Your task to perform on an android device: Open Yahoo.com Image 0: 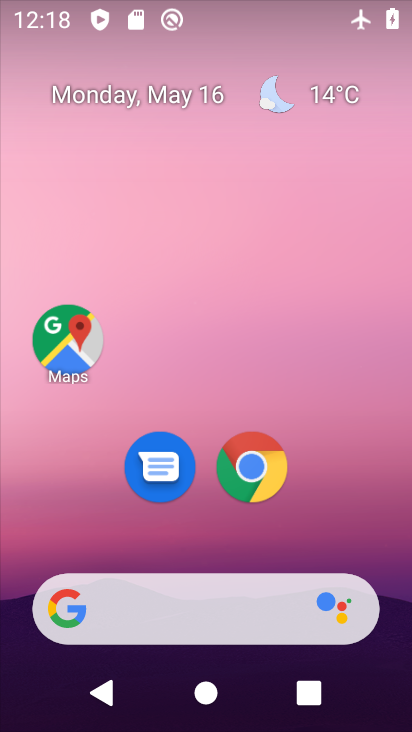
Step 0: drag from (326, 534) to (308, 193)
Your task to perform on an android device: Open Yahoo.com Image 1: 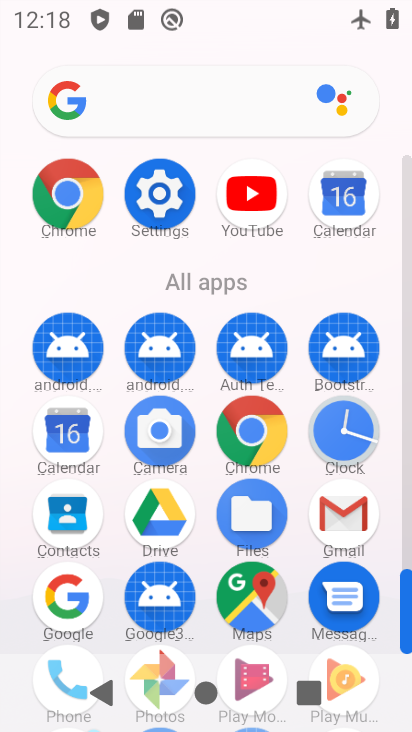
Step 1: click (254, 420)
Your task to perform on an android device: Open Yahoo.com Image 2: 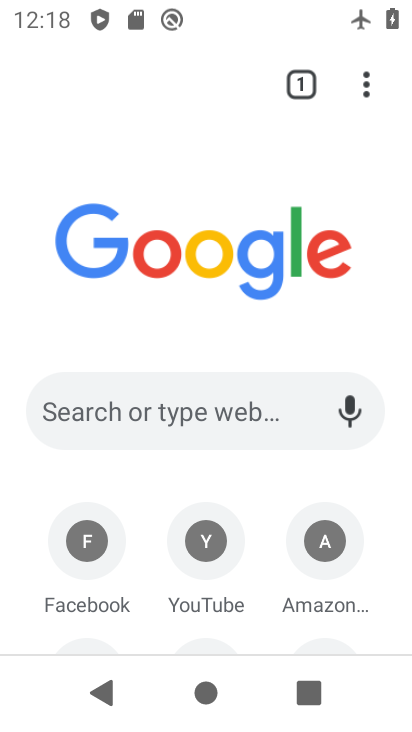
Step 2: drag from (223, 385) to (246, 149)
Your task to perform on an android device: Open Yahoo.com Image 3: 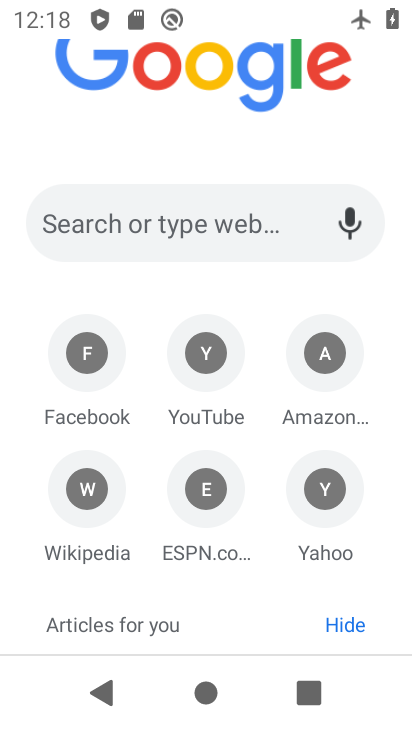
Step 3: click (336, 511)
Your task to perform on an android device: Open Yahoo.com Image 4: 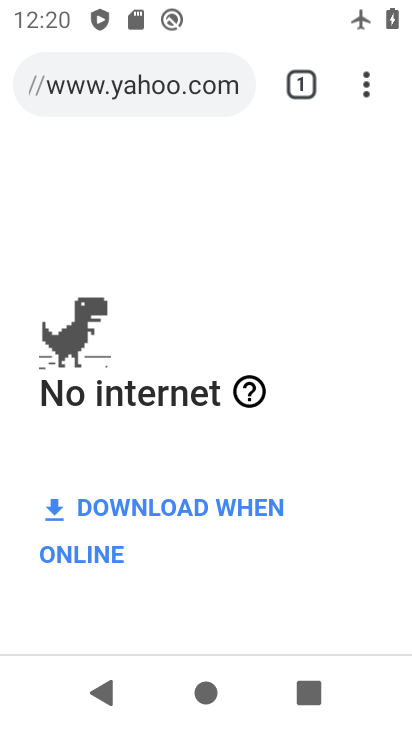
Step 4: task complete